Your task to perform on an android device: Open notification settings Image 0: 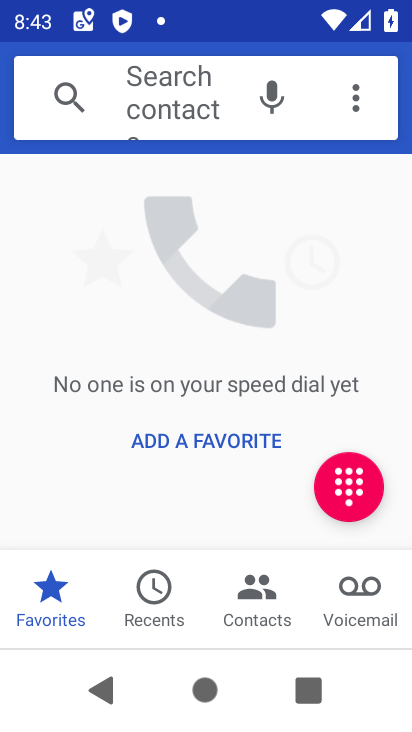
Step 0: press home button
Your task to perform on an android device: Open notification settings Image 1: 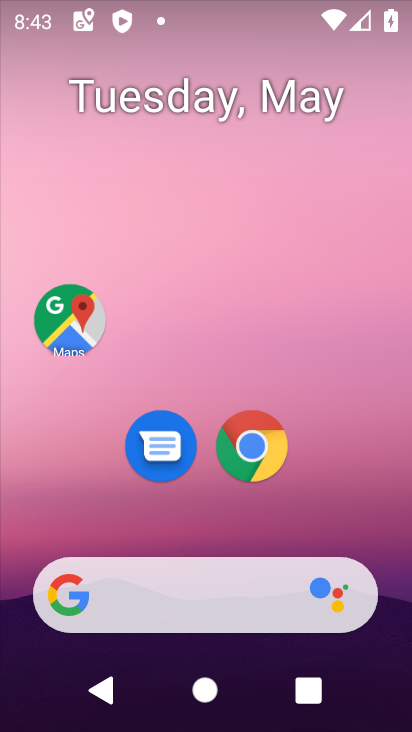
Step 1: drag from (328, 539) to (367, 5)
Your task to perform on an android device: Open notification settings Image 2: 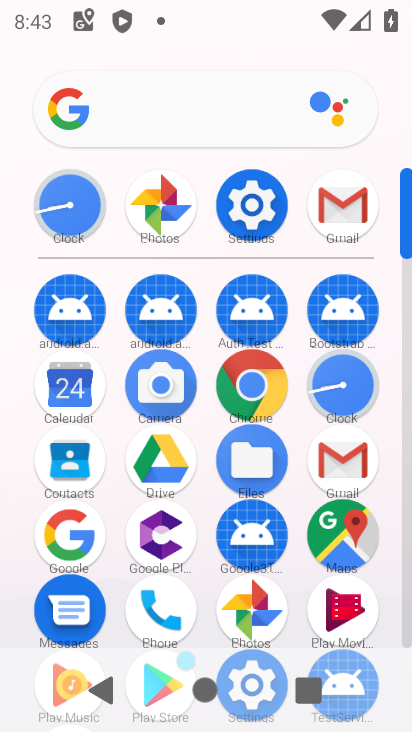
Step 2: click (248, 211)
Your task to perform on an android device: Open notification settings Image 3: 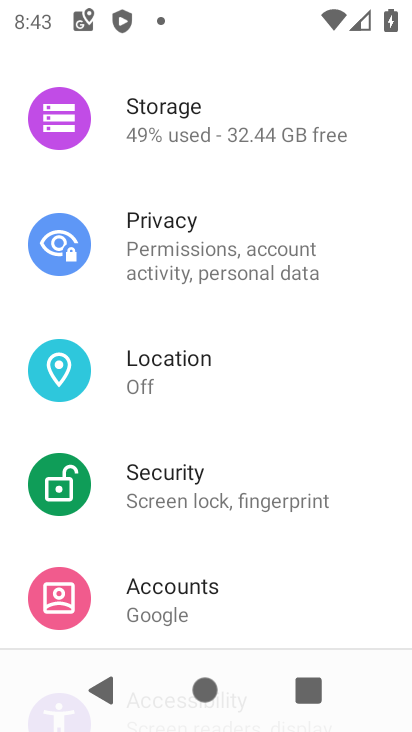
Step 3: drag from (240, 187) to (262, 488)
Your task to perform on an android device: Open notification settings Image 4: 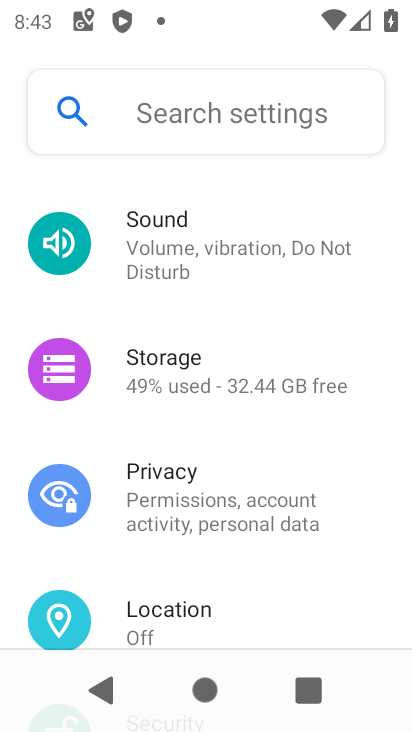
Step 4: drag from (233, 263) to (227, 531)
Your task to perform on an android device: Open notification settings Image 5: 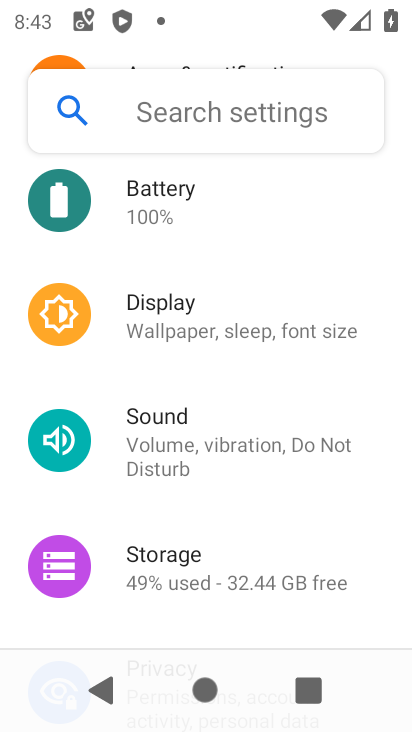
Step 5: drag from (256, 244) to (254, 534)
Your task to perform on an android device: Open notification settings Image 6: 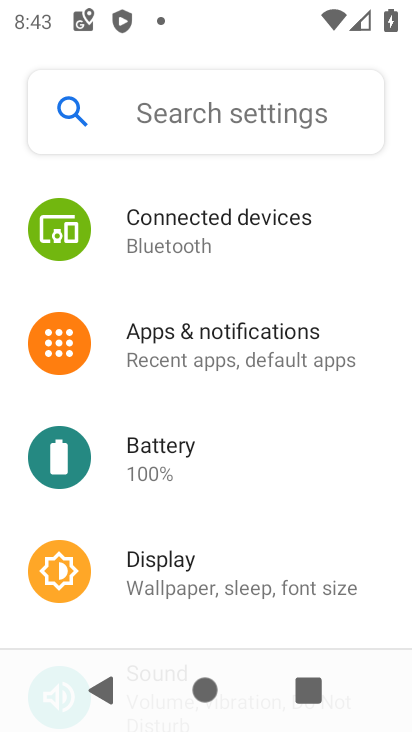
Step 6: click (193, 345)
Your task to perform on an android device: Open notification settings Image 7: 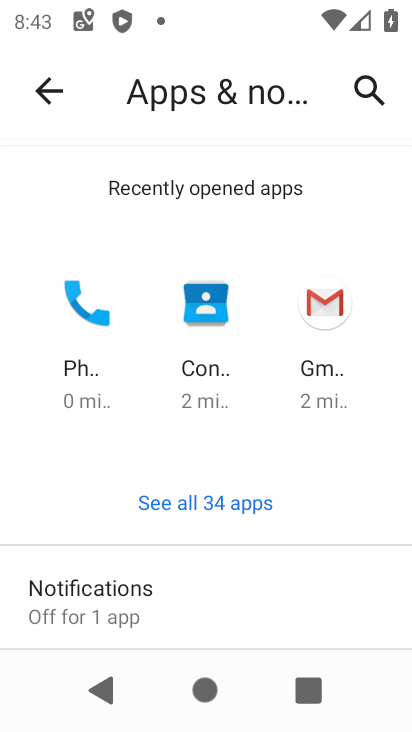
Step 7: task complete